Your task to perform on an android device: Open Google Image 0: 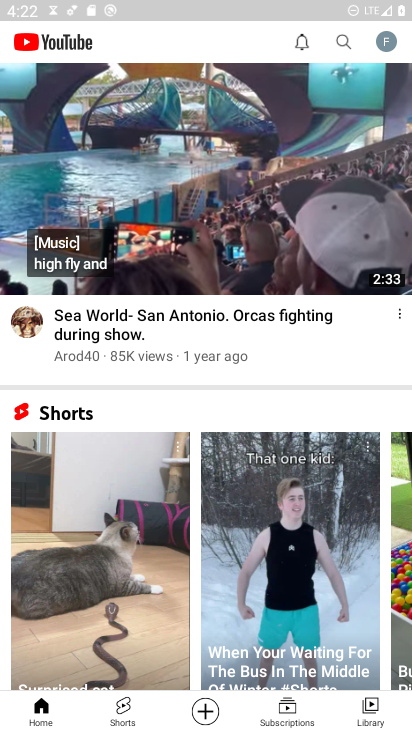
Step 0: press home button
Your task to perform on an android device: Open Google Image 1: 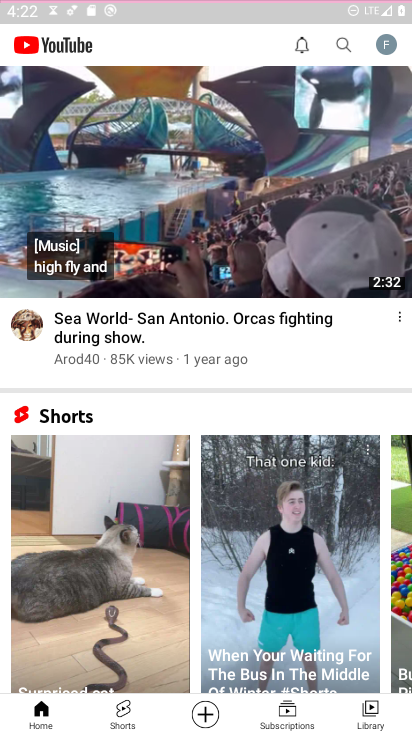
Step 1: press home button
Your task to perform on an android device: Open Google Image 2: 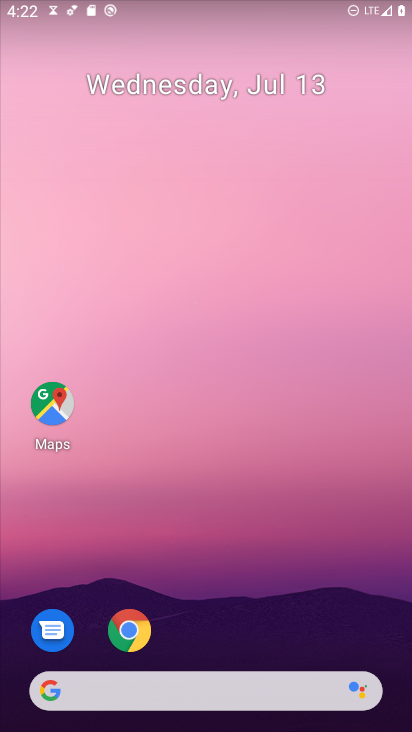
Step 2: drag from (243, 632) to (322, 141)
Your task to perform on an android device: Open Google Image 3: 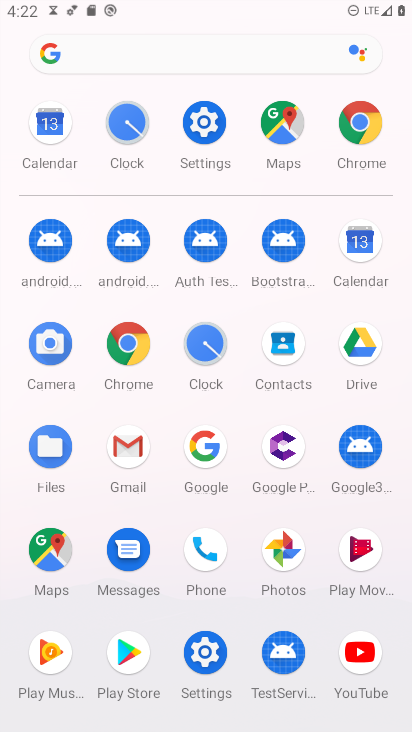
Step 3: click (193, 453)
Your task to perform on an android device: Open Google Image 4: 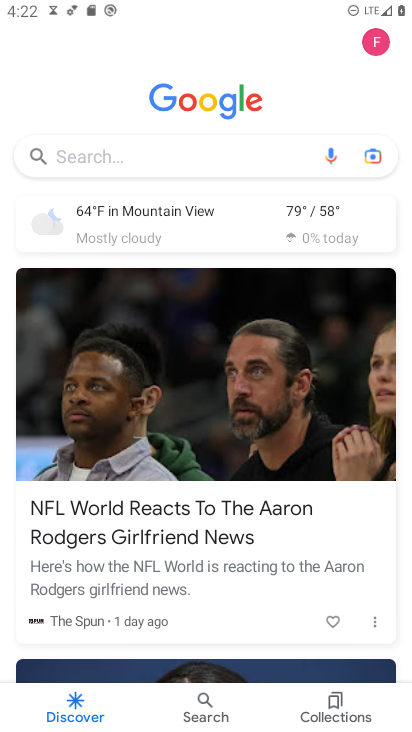
Step 4: task complete